Your task to perform on an android device: turn notification dots on Image 0: 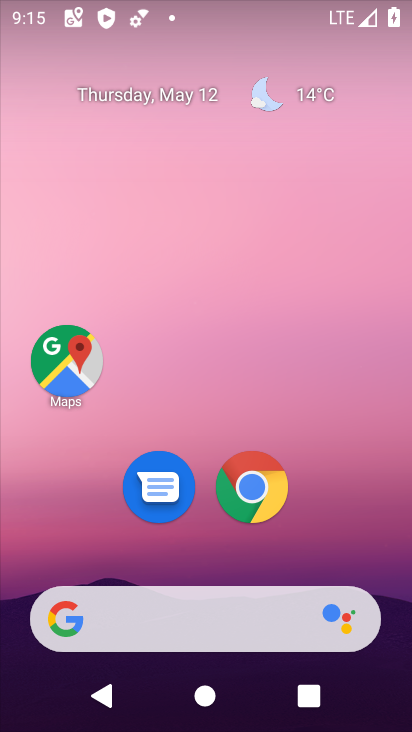
Step 0: drag from (29, 653) to (406, 388)
Your task to perform on an android device: turn notification dots on Image 1: 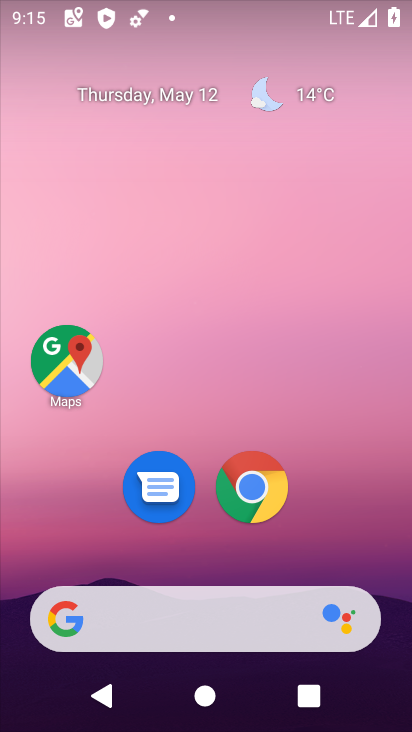
Step 1: drag from (13, 654) to (401, 295)
Your task to perform on an android device: turn notification dots on Image 2: 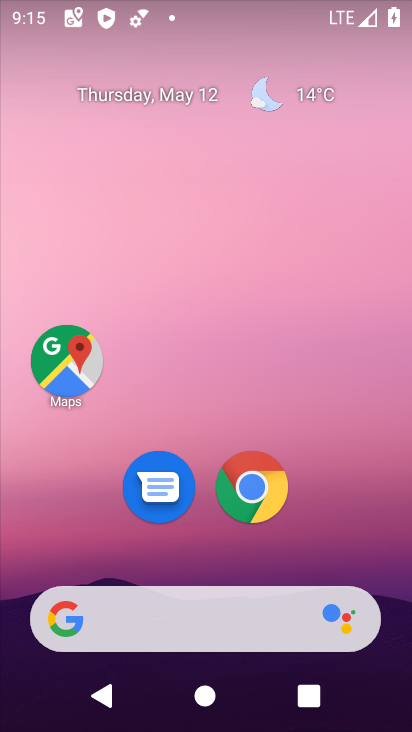
Step 2: drag from (26, 626) to (325, 116)
Your task to perform on an android device: turn notification dots on Image 3: 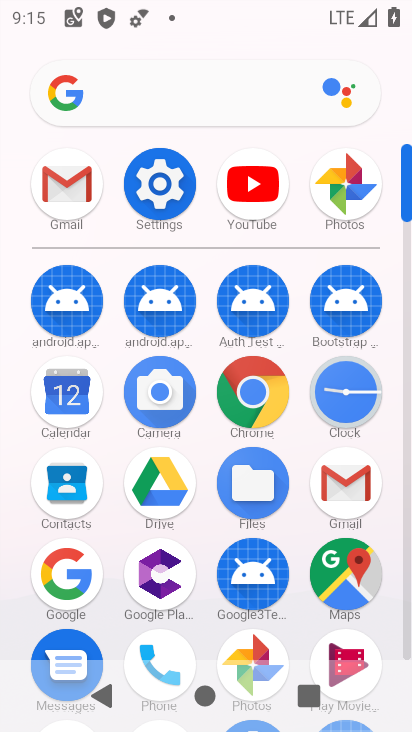
Step 3: click (157, 184)
Your task to perform on an android device: turn notification dots on Image 4: 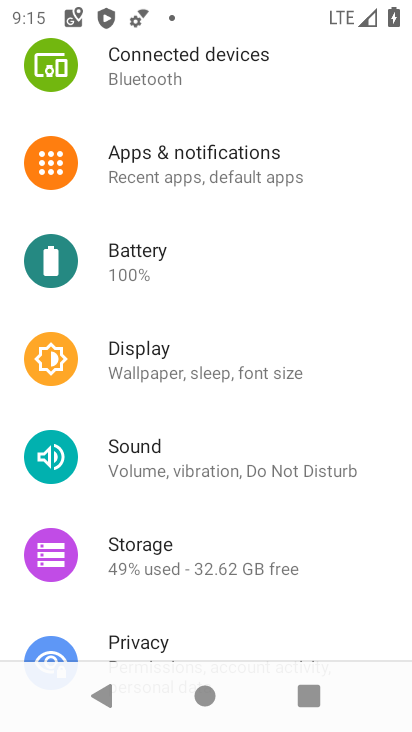
Step 4: drag from (209, 127) to (144, 461)
Your task to perform on an android device: turn notification dots on Image 5: 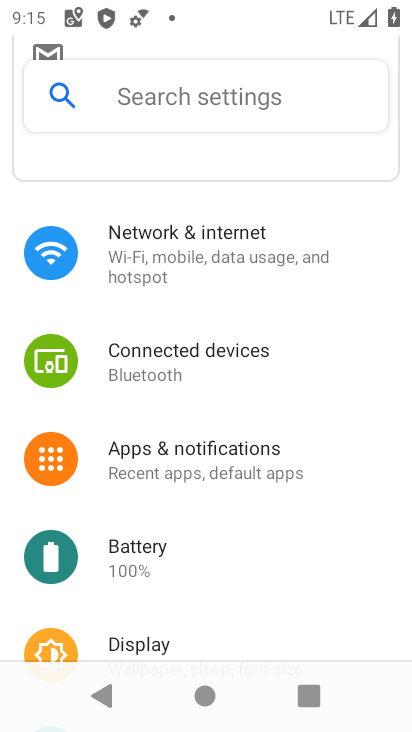
Step 5: click (148, 454)
Your task to perform on an android device: turn notification dots on Image 6: 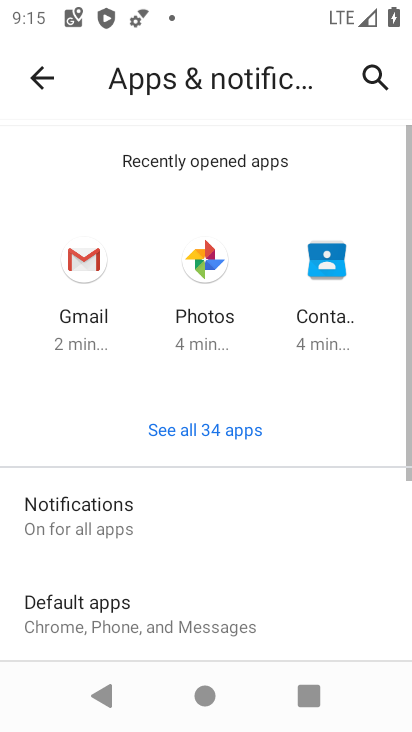
Step 6: click (128, 516)
Your task to perform on an android device: turn notification dots on Image 7: 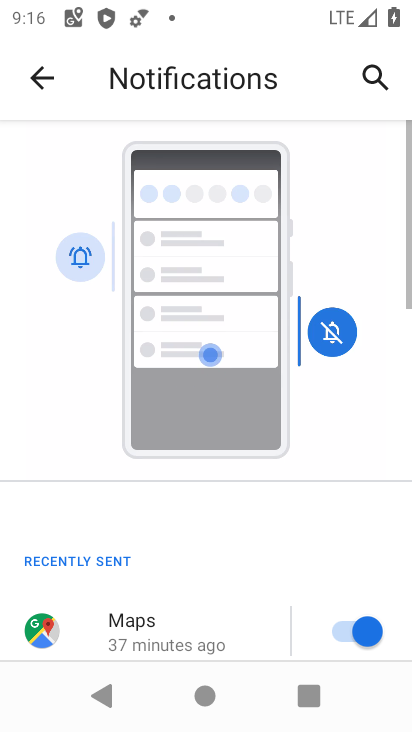
Step 7: drag from (14, 561) to (401, 108)
Your task to perform on an android device: turn notification dots on Image 8: 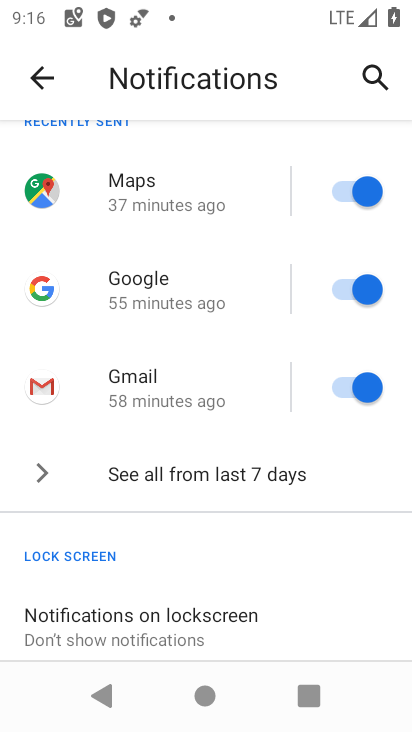
Step 8: click (96, 629)
Your task to perform on an android device: turn notification dots on Image 9: 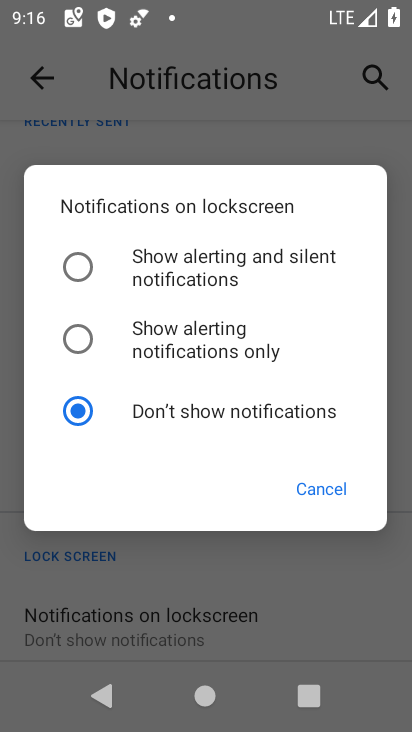
Step 9: press back button
Your task to perform on an android device: turn notification dots on Image 10: 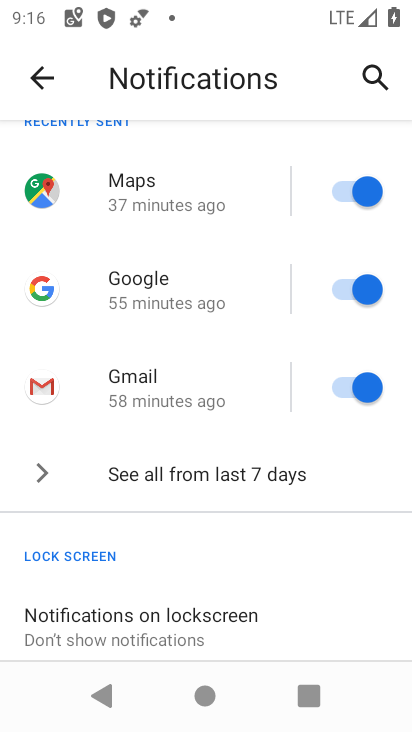
Step 10: drag from (86, 447) to (263, 149)
Your task to perform on an android device: turn notification dots on Image 11: 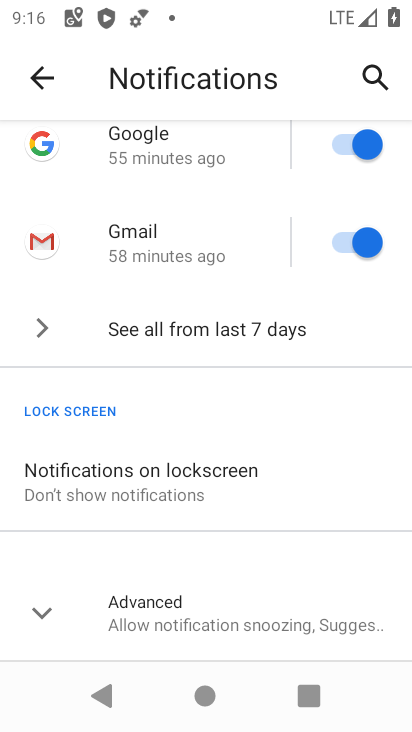
Step 11: click (57, 618)
Your task to perform on an android device: turn notification dots on Image 12: 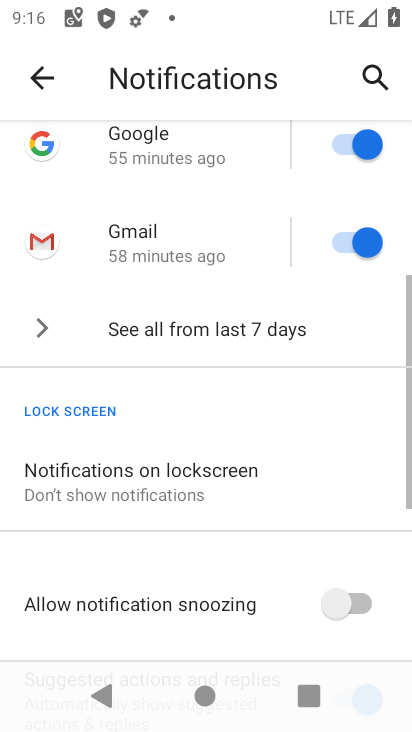
Step 12: drag from (63, 608) to (282, 220)
Your task to perform on an android device: turn notification dots on Image 13: 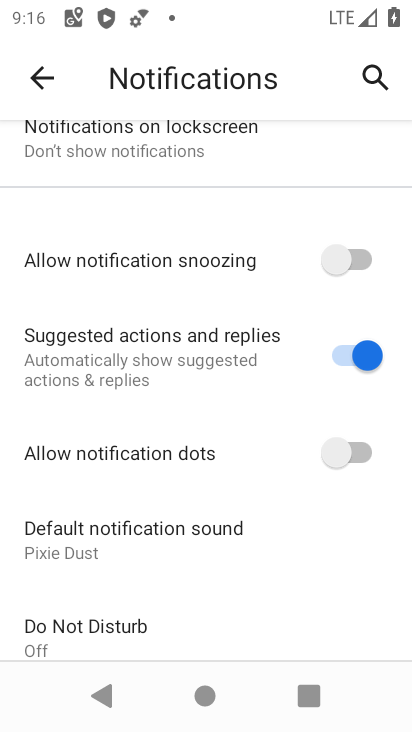
Step 13: click (333, 461)
Your task to perform on an android device: turn notification dots on Image 14: 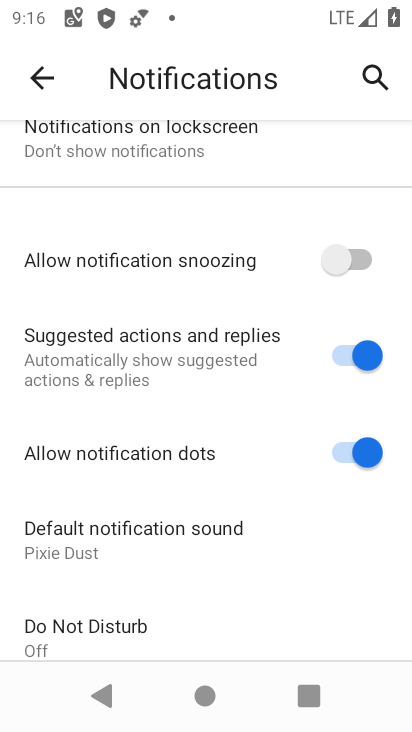
Step 14: task complete